Your task to perform on an android device: find snoozed emails in the gmail app Image 0: 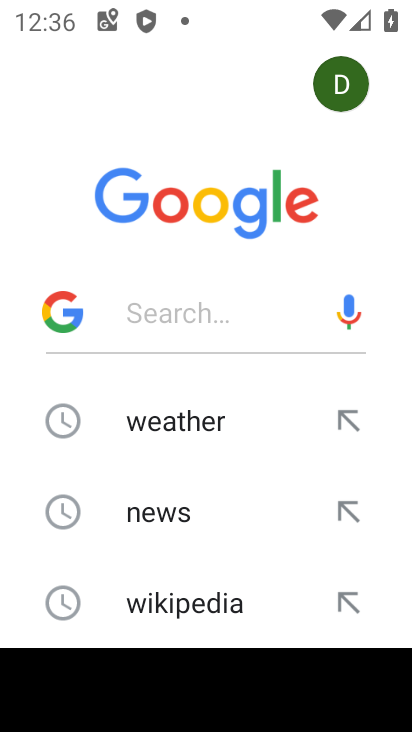
Step 0: press home button
Your task to perform on an android device: find snoozed emails in the gmail app Image 1: 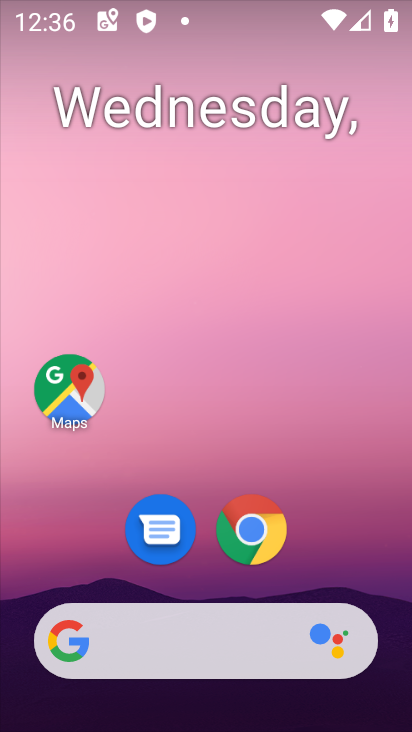
Step 1: drag from (400, 651) to (327, 160)
Your task to perform on an android device: find snoozed emails in the gmail app Image 2: 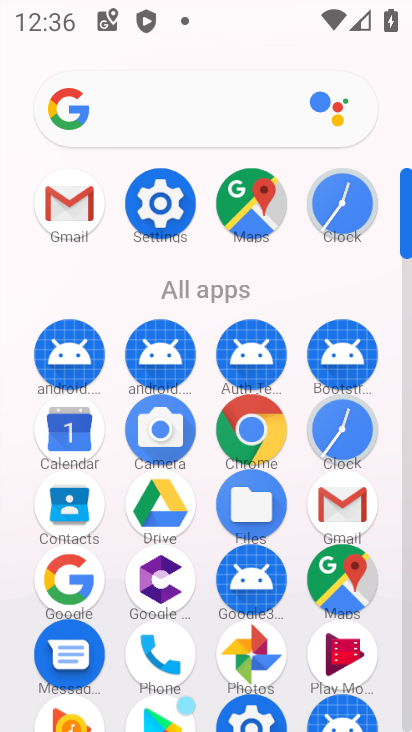
Step 2: click (341, 511)
Your task to perform on an android device: find snoozed emails in the gmail app Image 3: 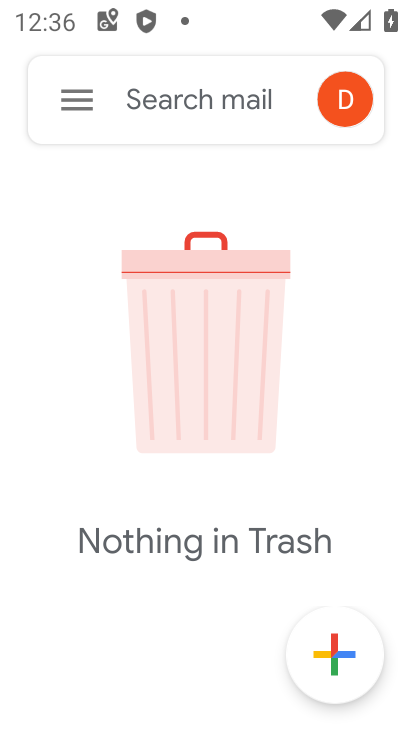
Step 3: click (79, 91)
Your task to perform on an android device: find snoozed emails in the gmail app Image 4: 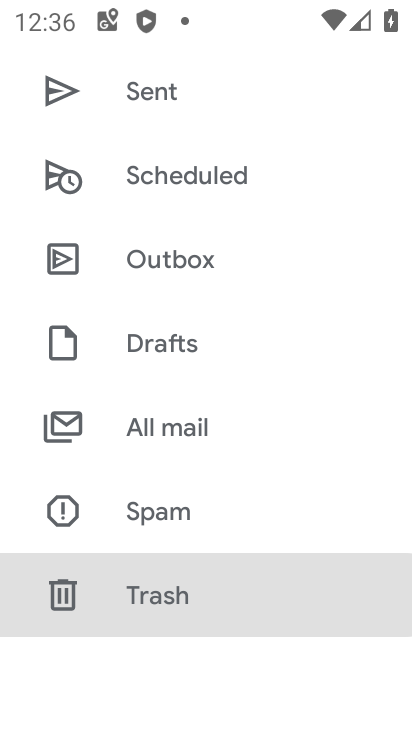
Step 4: drag from (305, 266) to (259, 598)
Your task to perform on an android device: find snoozed emails in the gmail app Image 5: 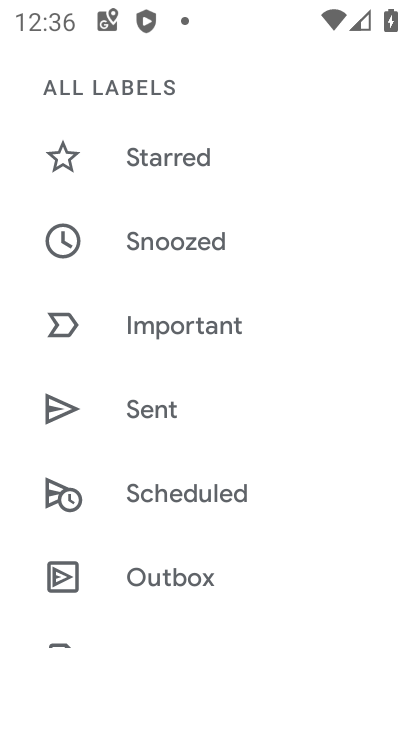
Step 5: click (150, 240)
Your task to perform on an android device: find snoozed emails in the gmail app Image 6: 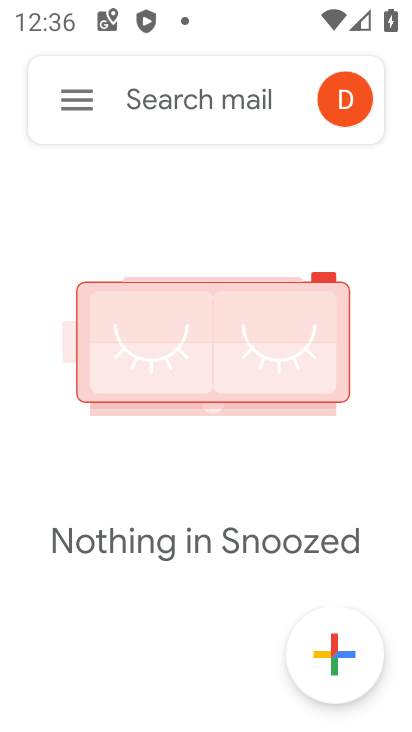
Step 6: task complete